Your task to perform on an android device: create a new album in the google photos Image 0: 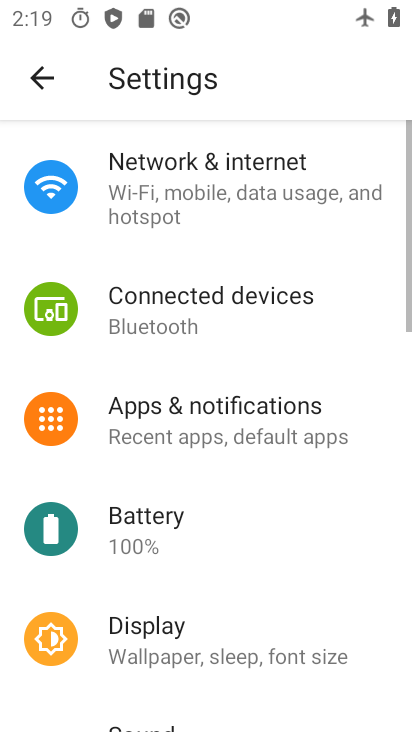
Step 0: press home button
Your task to perform on an android device: create a new album in the google photos Image 1: 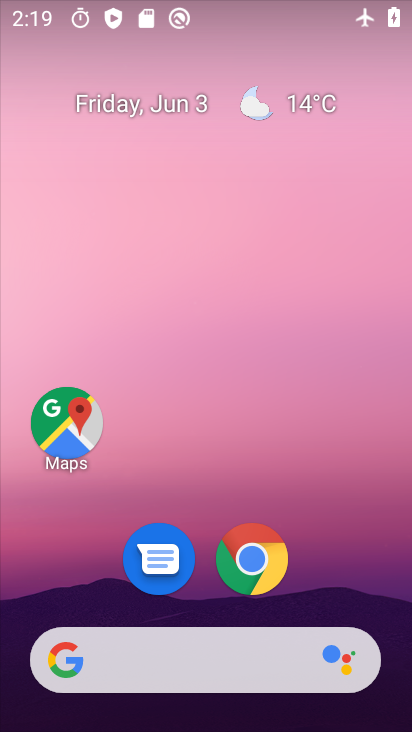
Step 1: drag from (180, 602) to (56, 8)
Your task to perform on an android device: create a new album in the google photos Image 2: 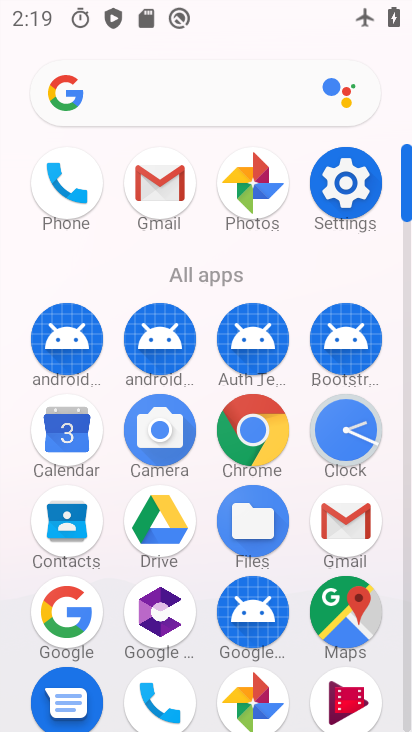
Step 2: click (262, 680)
Your task to perform on an android device: create a new album in the google photos Image 3: 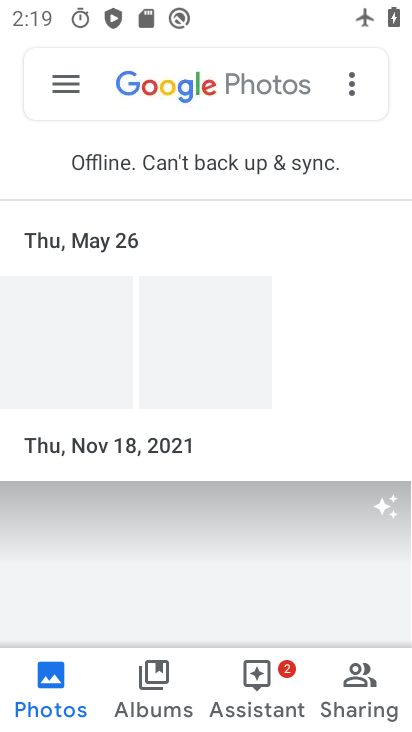
Step 3: click (112, 367)
Your task to perform on an android device: create a new album in the google photos Image 4: 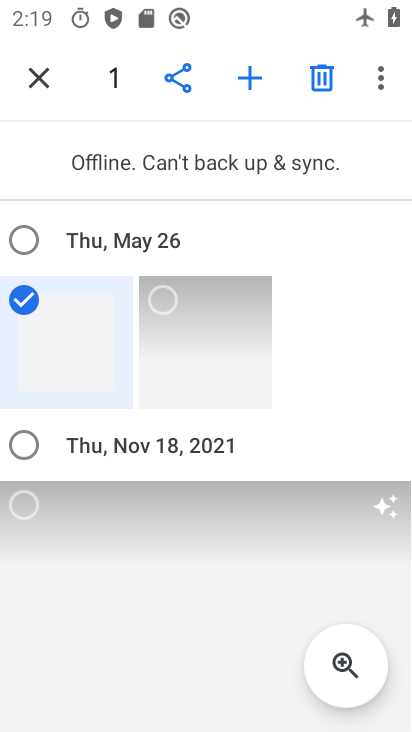
Step 4: click (142, 366)
Your task to perform on an android device: create a new album in the google photos Image 5: 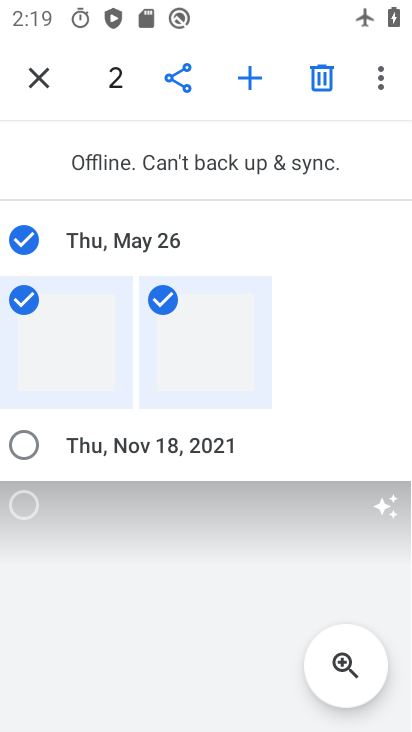
Step 5: click (227, 76)
Your task to perform on an android device: create a new album in the google photos Image 6: 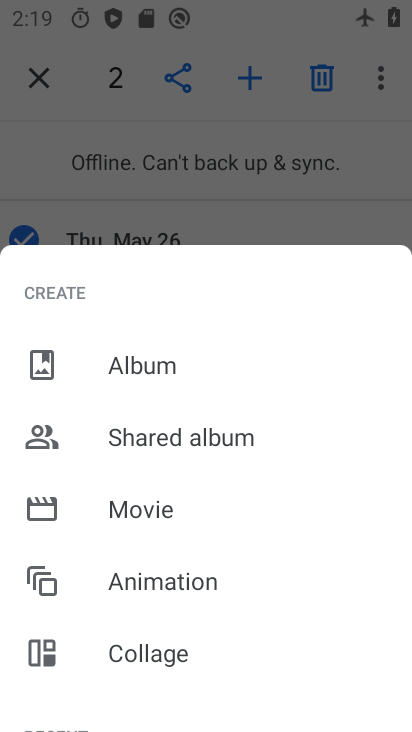
Step 6: click (97, 339)
Your task to perform on an android device: create a new album in the google photos Image 7: 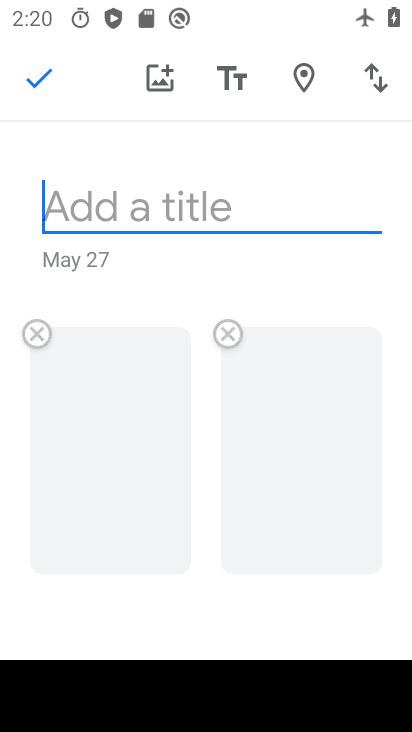
Step 7: type "g"
Your task to perform on an android device: create a new album in the google photos Image 8: 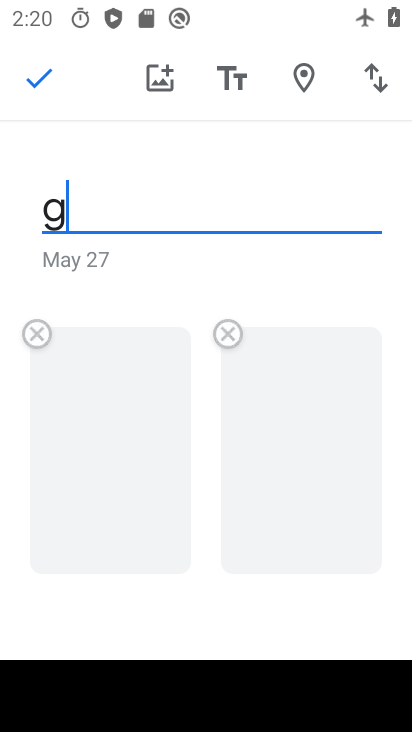
Step 8: type ""
Your task to perform on an android device: create a new album in the google photos Image 9: 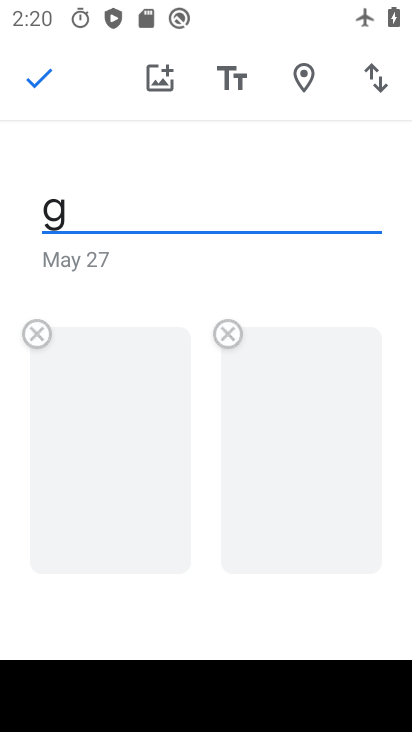
Step 9: click (37, 82)
Your task to perform on an android device: create a new album in the google photos Image 10: 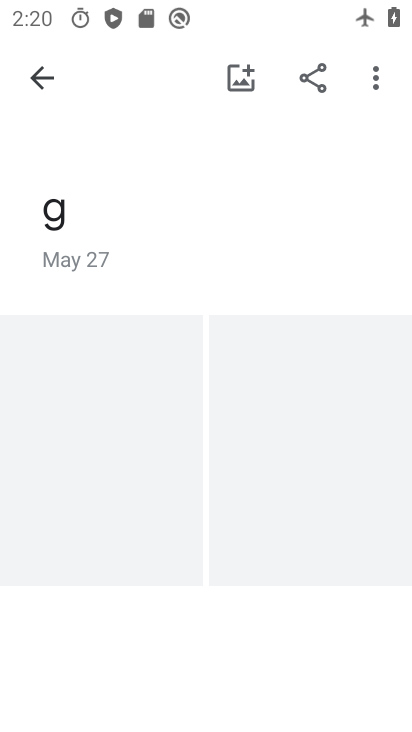
Step 10: task complete